Your task to perform on an android device: set the timer Image 0: 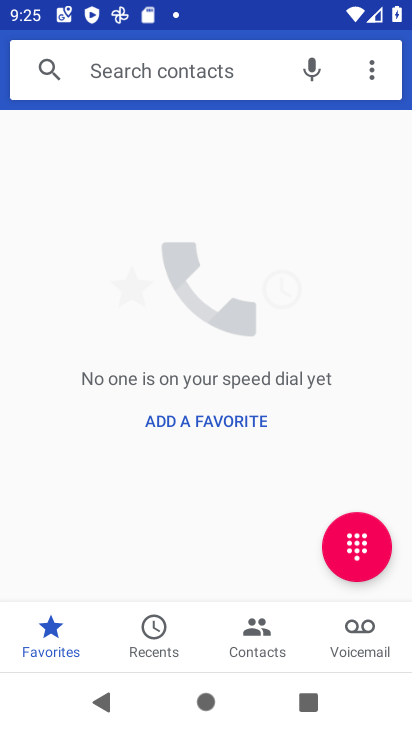
Step 0: press home button
Your task to perform on an android device: set the timer Image 1: 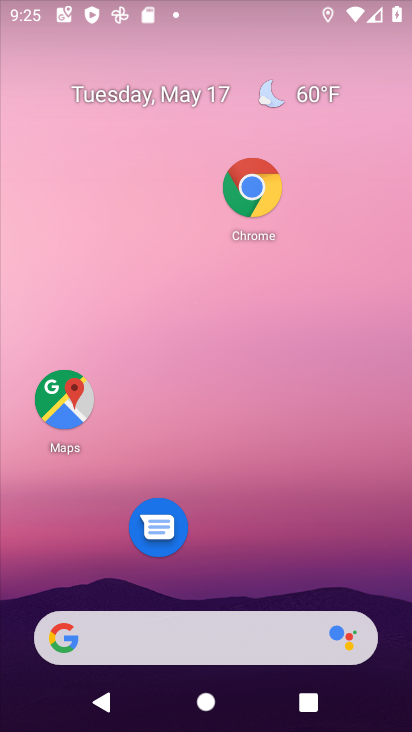
Step 1: drag from (339, 542) to (328, 1)
Your task to perform on an android device: set the timer Image 2: 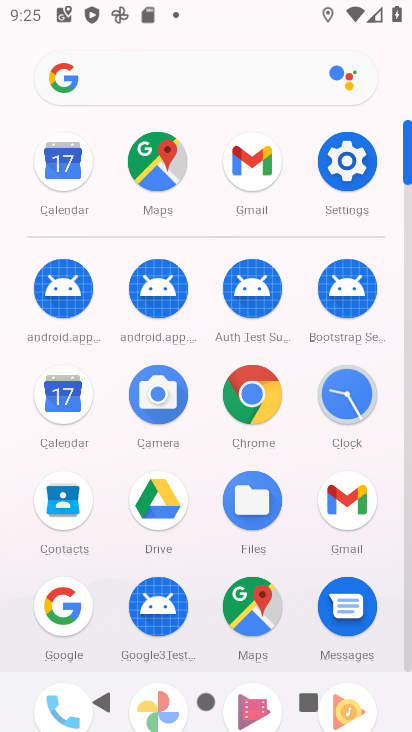
Step 2: click (345, 392)
Your task to perform on an android device: set the timer Image 3: 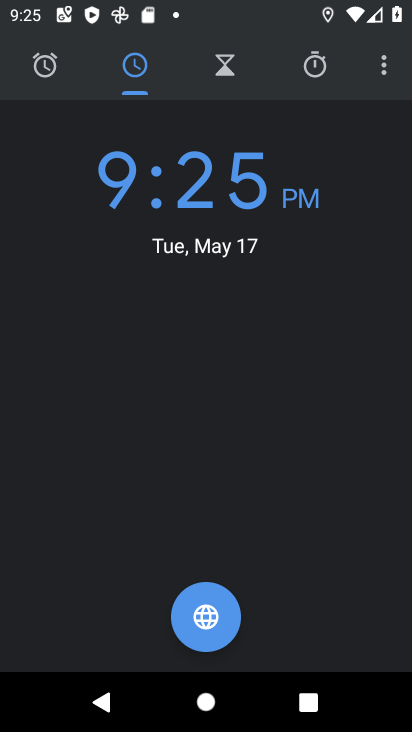
Step 3: click (244, 78)
Your task to perform on an android device: set the timer Image 4: 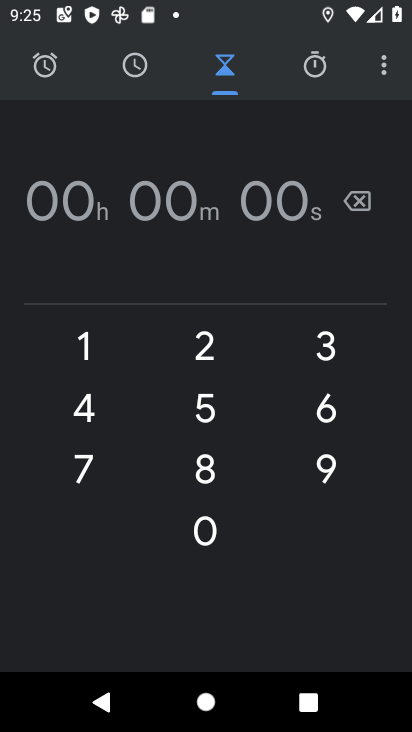
Step 4: task complete